Your task to perform on an android device: manage bookmarks in the chrome app Image 0: 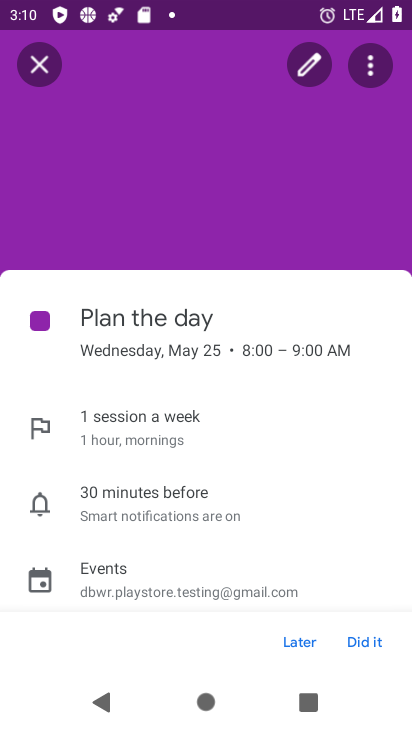
Step 0: press home button
Your task to perform on an android device: manage bookmarks in the chrome app Image 1: 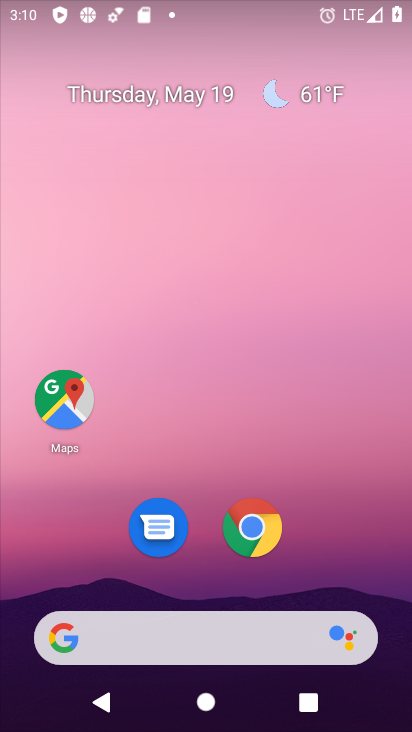
Step 1: click (250, 527)
Your task to perform on an android device: manage bookmarks in the chrome app Image 2: 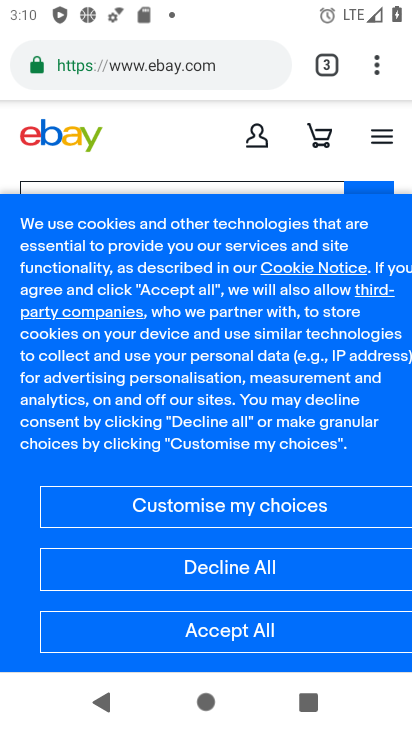
Step 2: task complete